Your task to perform on an android device: turn on the 12-hour format for clock Image 0: 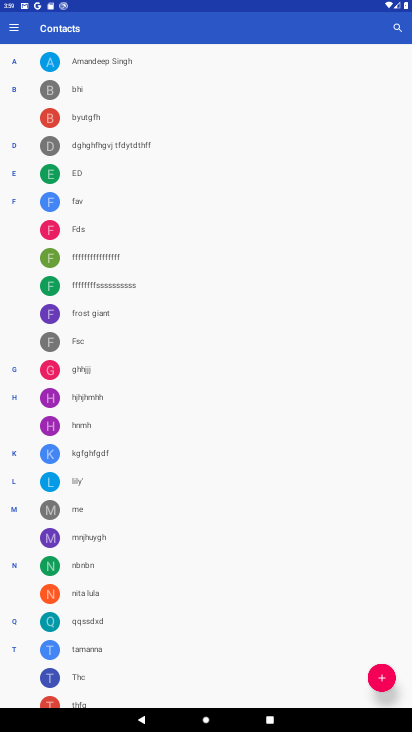
Step 0: press home button
Your task to perform on an android device: turn on the 12-hour format for clock Image 1: 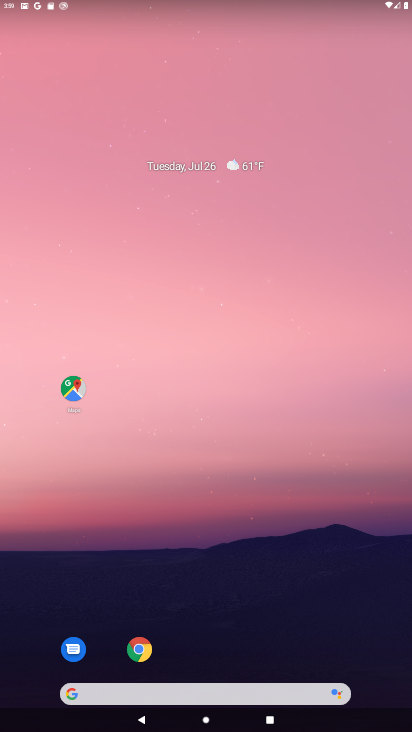
Step 1: drag from (271, 494) to (359, 225)
Your task to perform on an android device: turn on the 12-hour format for clock Image 2: 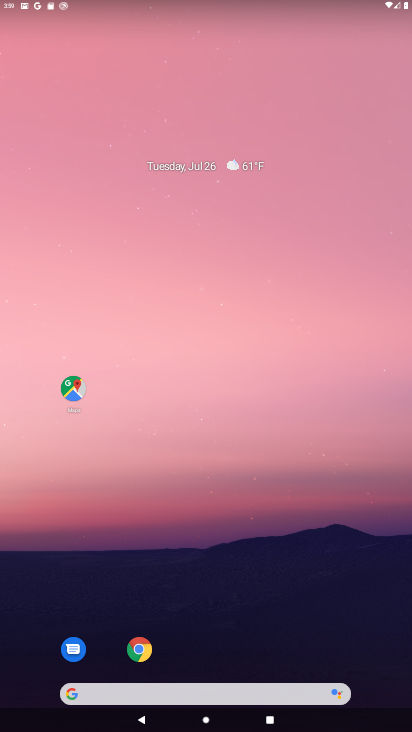
Step 2: drag from (242, 477) to (372, 123)
Your task to perform on an android device: turn on the 12-hour format for clock Image 3: 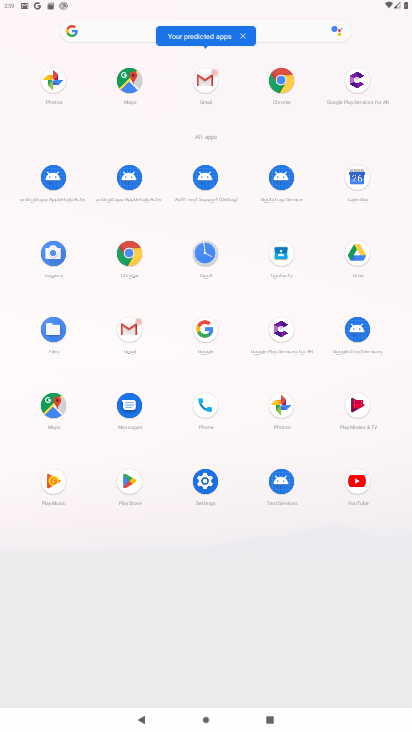
Step 3: click (205, 254)
Your task to perform on an android device: turn on the 12-hour format for clock Image 4: 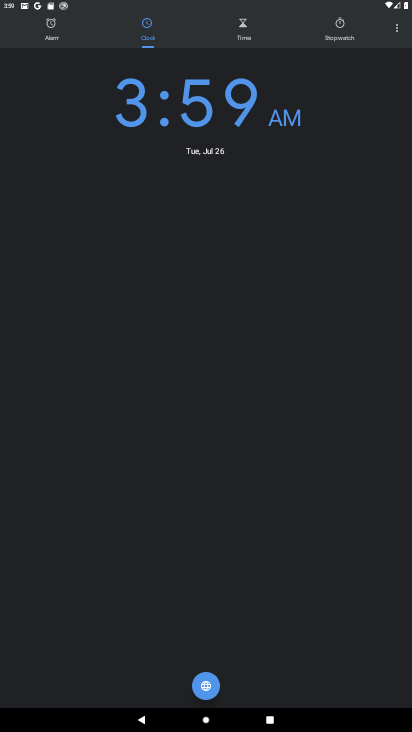
Step 4: task complete